Your task to perform on an android device: turn off sleep mode Image 0: 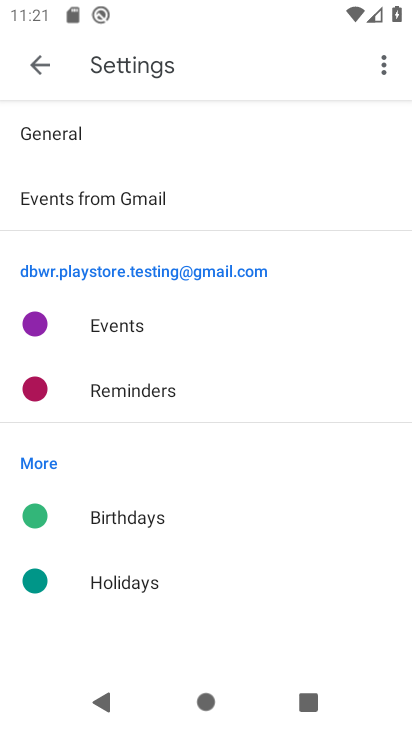
Step 0: press home button
Your task to perform on an android device: turn off sleep mode Image 1: 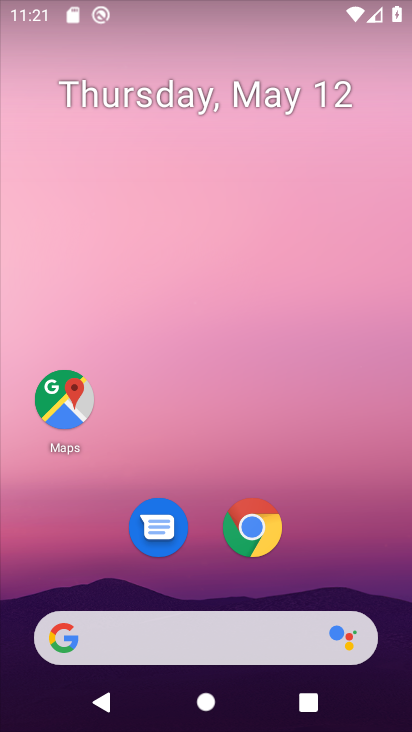
Step 1: drag from (202, 579) to (281, 30)
Your task to perform on an android device: turn off sleep mode Image 2: 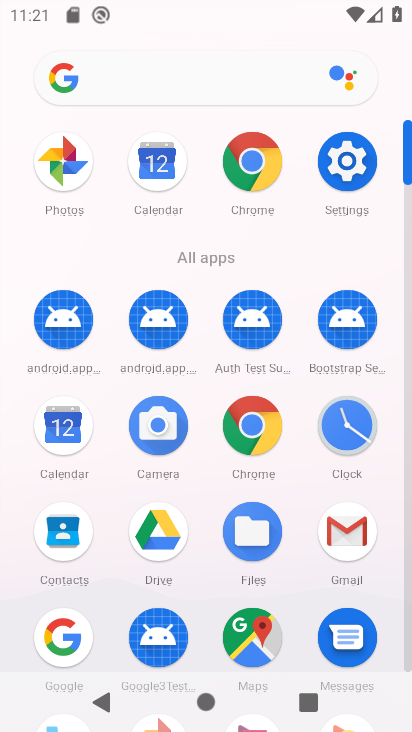
Step 2: click (353, 166)
Your task to perform on an android device: turn off sleep mode Image 3: 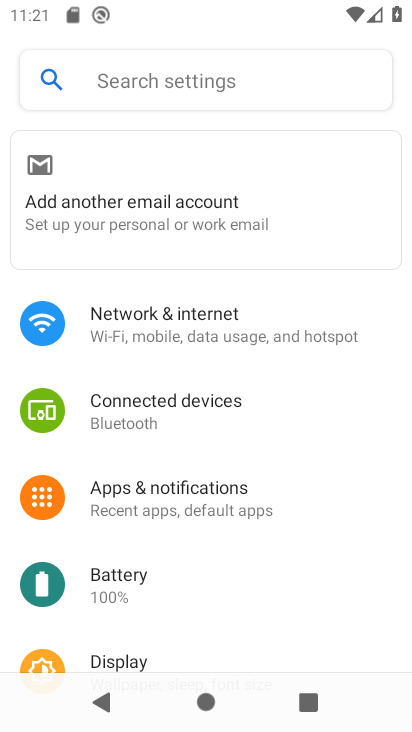
Step 3: click (117, 505)
Your task to perform on an android device: turn off sleep mode Image 4: 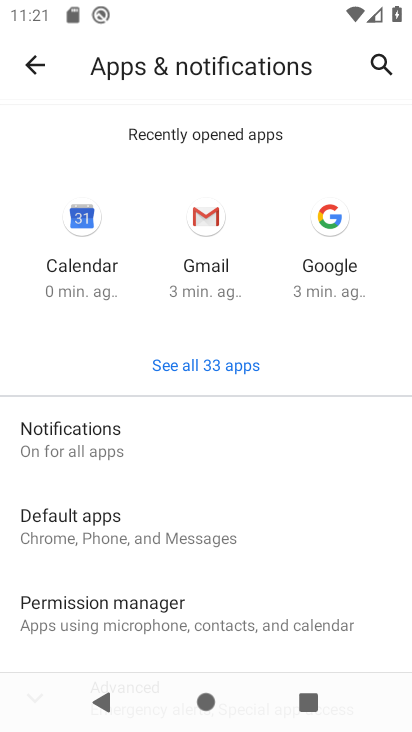
Step 4: task complete